Your task to perform on an android device: check android version Image 0: 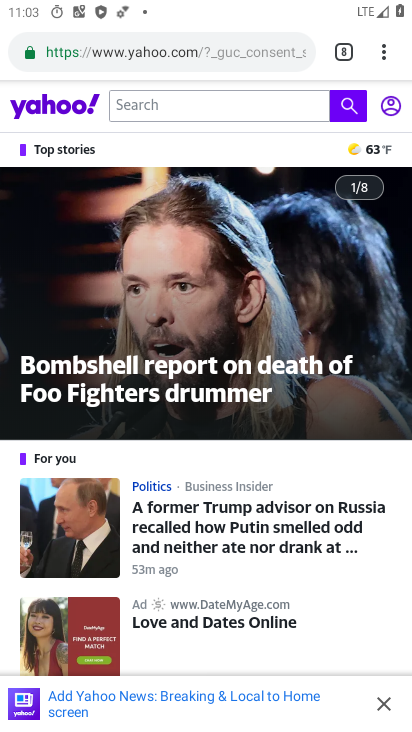
Step 0: press home button
Your task to perform on an android device: check android version Image 1: 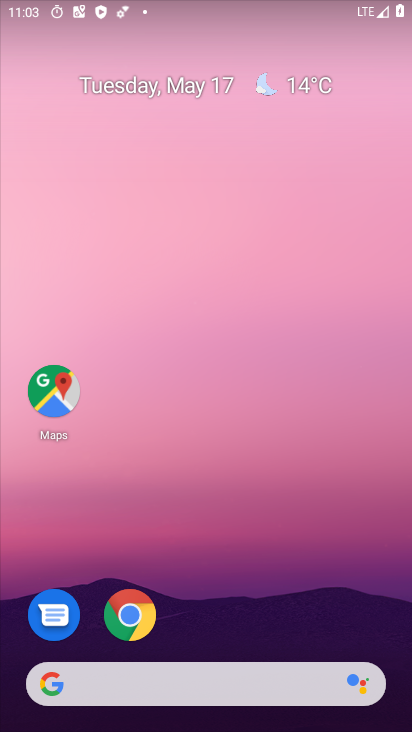
Step 1: drag from (144, 670) to (303, 151)
Your task to perform on an android device: check android version Image 2: 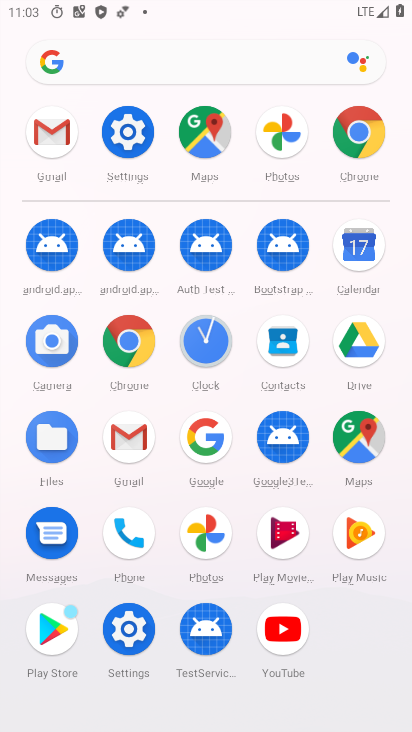
Step 2: click (123, 135)
Your task to perform on an android device: check android version Image 3: 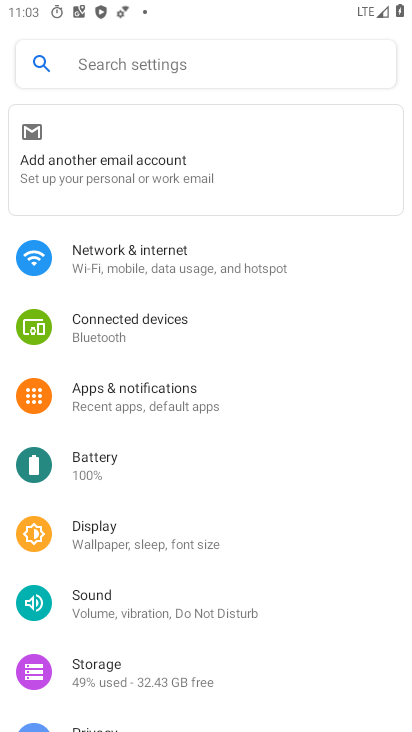
Step 3: drag from (300, 580) to (362, 248)
Your task to perform on an android device: check android version Image 4: 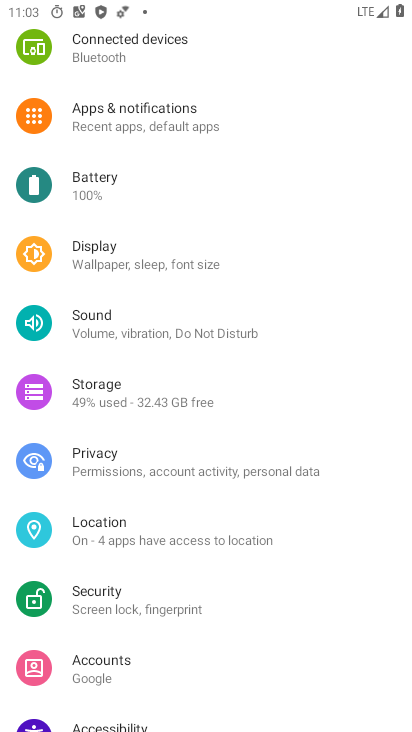
Step 4: drag from (278, 603) to (363, 97)
Your task to perform on an android device: check android version Image 5: 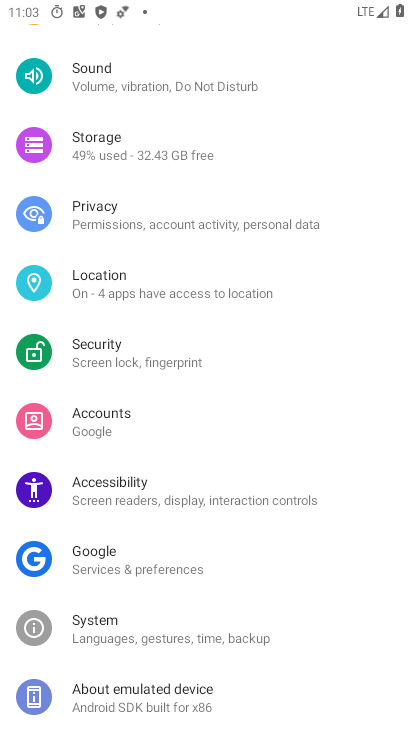
Step 5: click (137, 696)
Your task to perform on an android device: check android version Image 6: 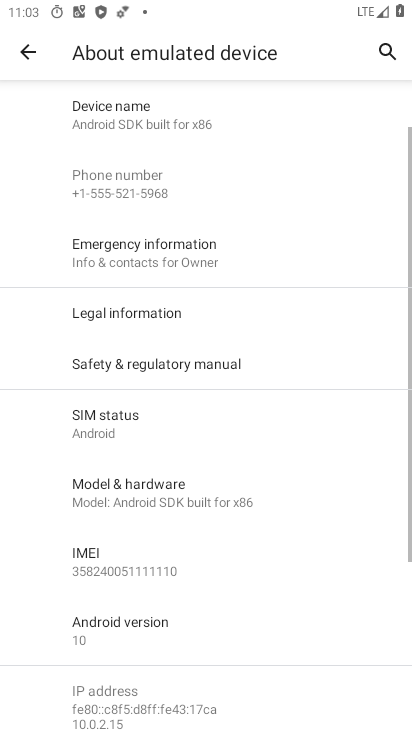
Step 6: click (149, 621)
Your task to perform on an android device: check android version Image 7: 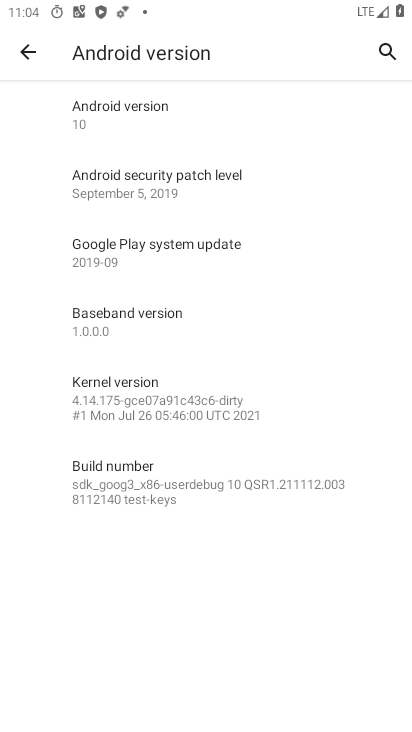
Step 7: task complete